Your task to perform on an android device: open chrome privacy settings Image 0: 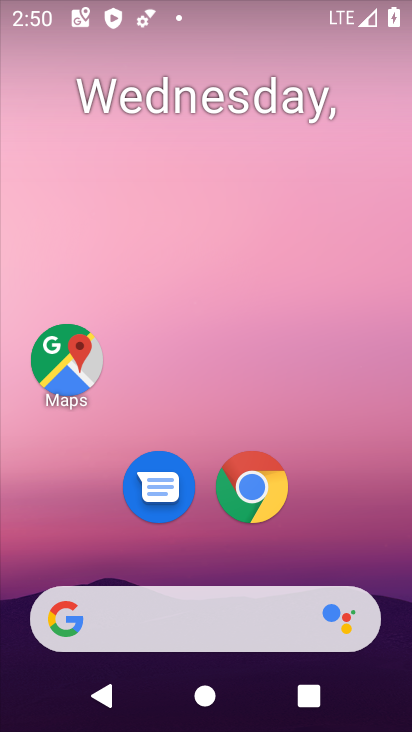
Step 0: drag from (326, 571) to (338, 479)
Your task to perform on an android device: open chrome privacy settings Image 1: 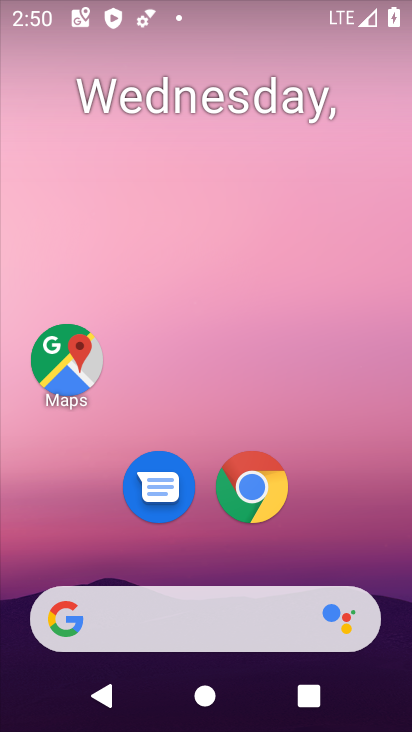
Step 1: click (275, 490)
Your task to perform on an android device: open chrome privacy settings Image 2: 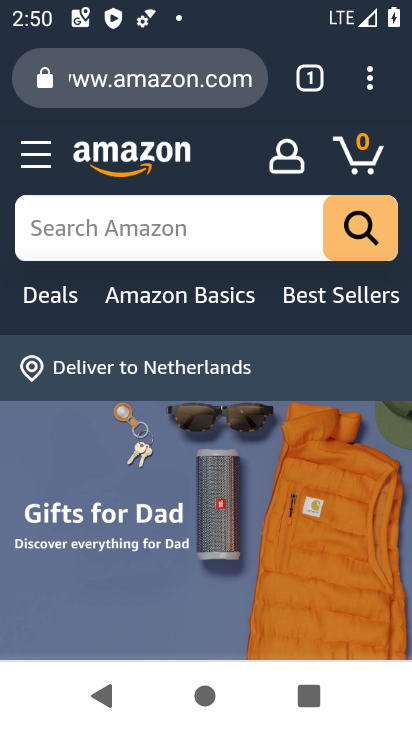
Step 2: click (373, 86)
Your task to perform on an android device: open chrome privacy settings Image 3: 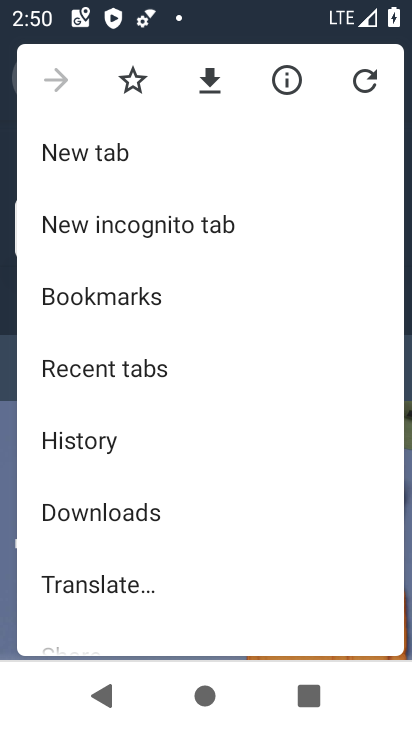
Step 3: drag from (293, 586) to (283, 26)
Your task to perform on an android device: open chrome privacy settings Image 4: 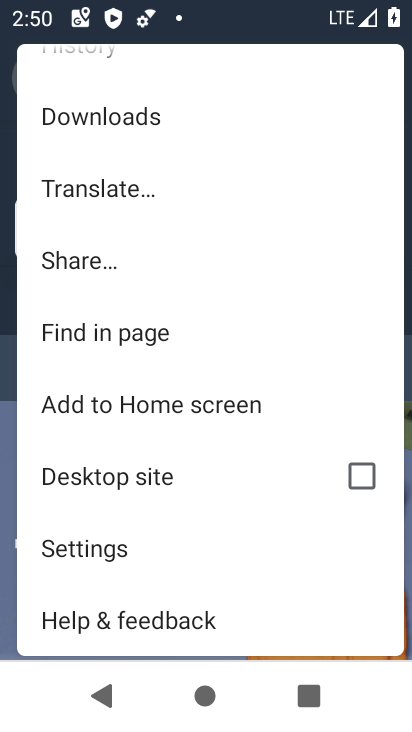
Step 4: click (155, 544)
Your task to perform on an android device: open chrome privacy settings Image 5: 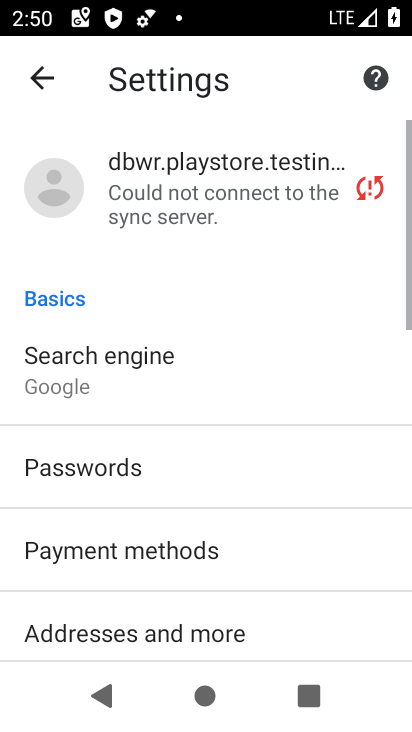
Step 5: drag from (185, 560) to (216, 209)
Your task to perform on an android device: open chrome privacy settings Image 6: 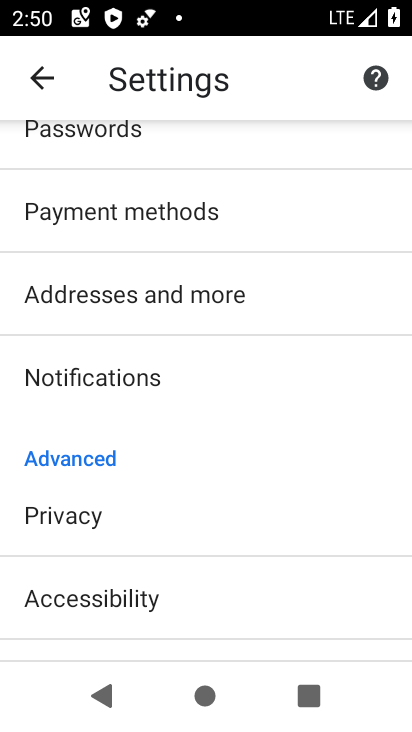
Step 6: click (171, 506)
Your task to perform on an android device: open chrome privacy settings Image 7: 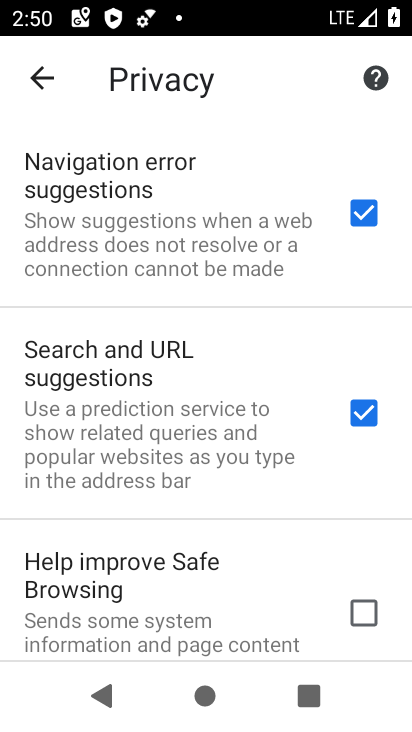
Step 7: task complete